Your task to perform on an android device: open app "Google Keep" (install if not already installed) Image 0: 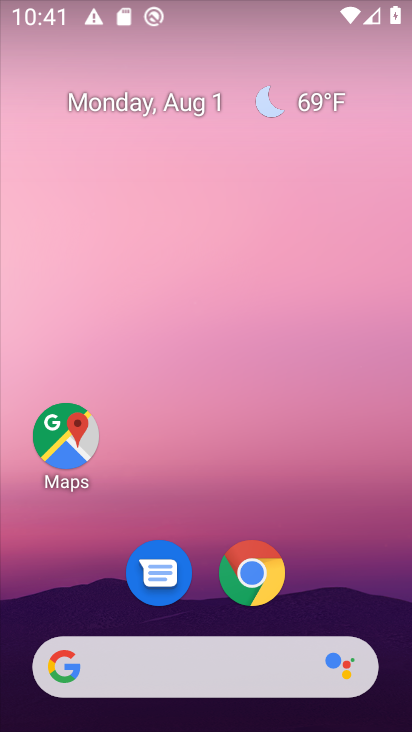
Step 0: drag from (350, 567) to (345, 108)
Your task to perform on an android device: open app "Google Keep" (install if not already installed) Image 1: 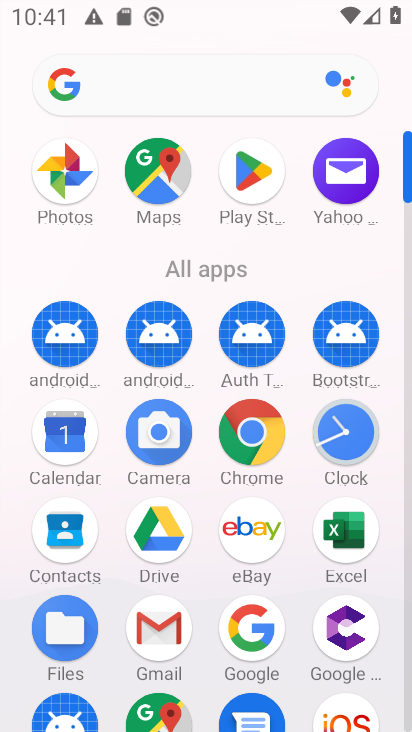
Step 1: click (258, 172)
Your task to perform on an android device: open app "Google Keep" (install if not already installed) Image 2: 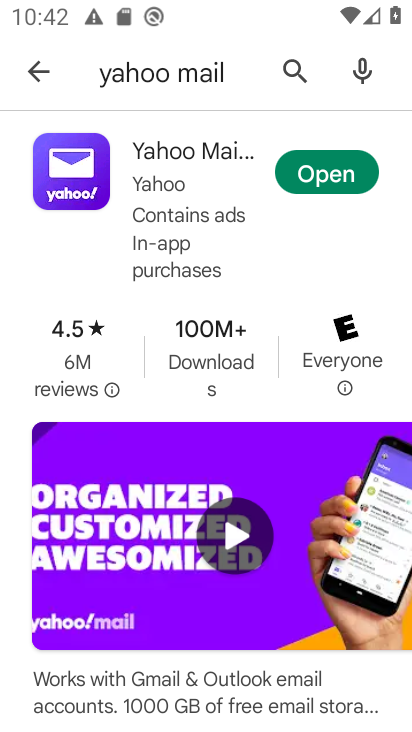
Step 2: click (288, 65)
Your task to perform on an android device: open app "Google Keep" (install if not already installed) Image 3: 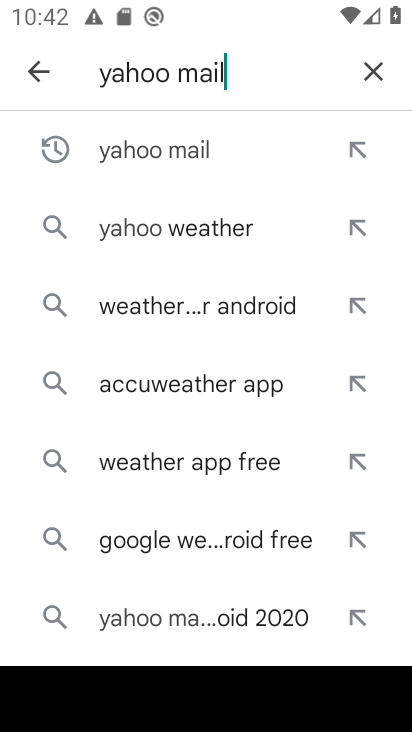
Step 3: click (372, 72)
Your task to perform on an android device: open app "Google Keep" (install if not already installed) Image 4: 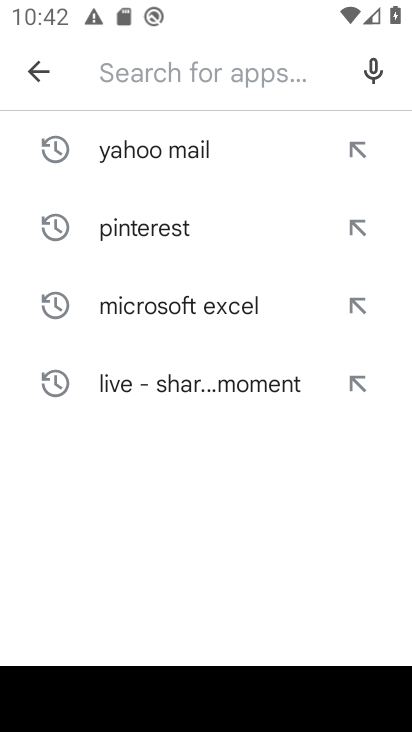
Step 4: click (202, 76)
Your task to perform on an android device: open app "Google Keep" (install if not already installed) Image 5: 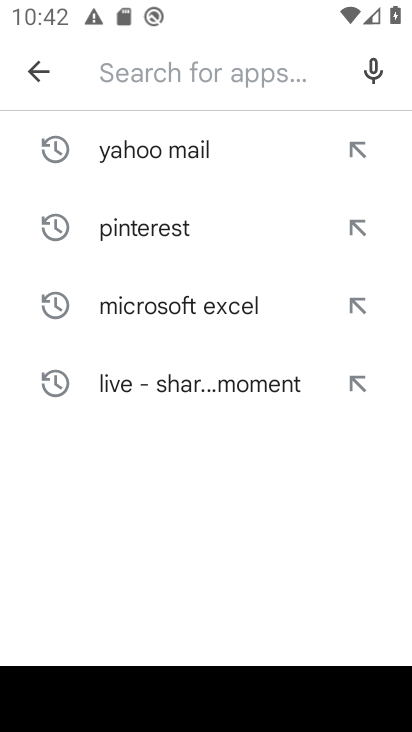
Step 5: type "Google Keep"
Your task to perform on an android device: open app "Google Keep" (install if not already installed) Image 6: 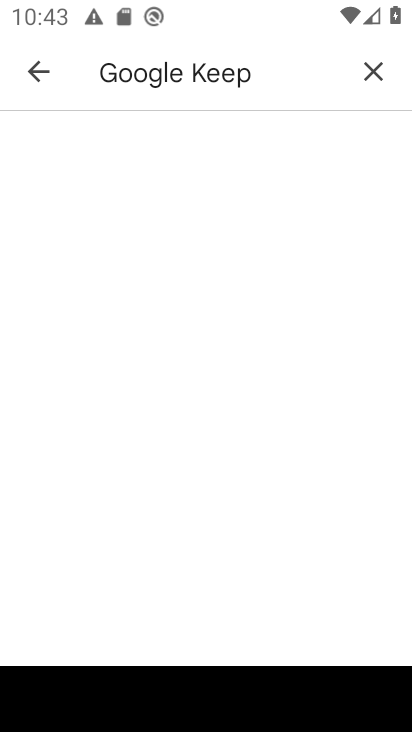
Step 6: task complete